Your task to perform on an android device: Open Chrome and go to settings Image 0: 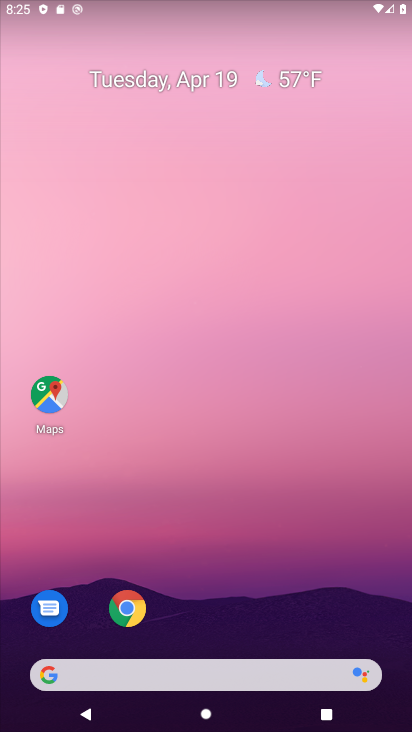
Step 0: click (128, 607)
Your task to perform on an android device: Open Chrome and go to settings Image 1: 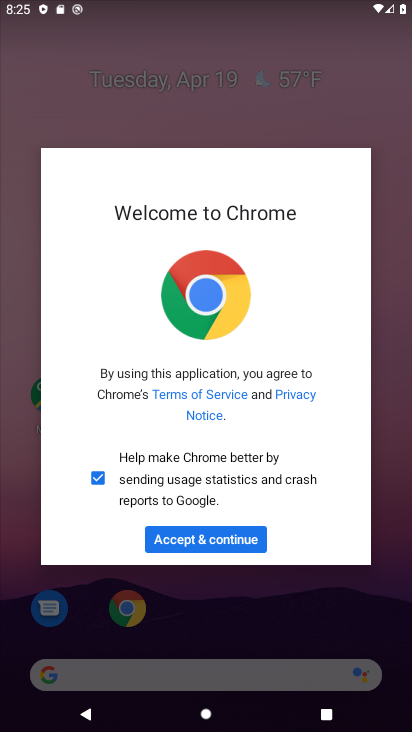
Step 1: click (188, 540)
Your task to perform on an android device: Open Chrome and go to settings Image 2: 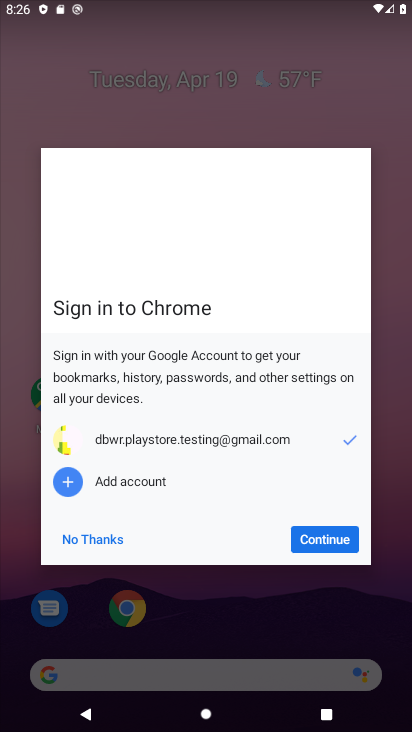
Step 2: click (311, 542)
Your task to perform on an android device: Open Chrome and go to settings Image 3: 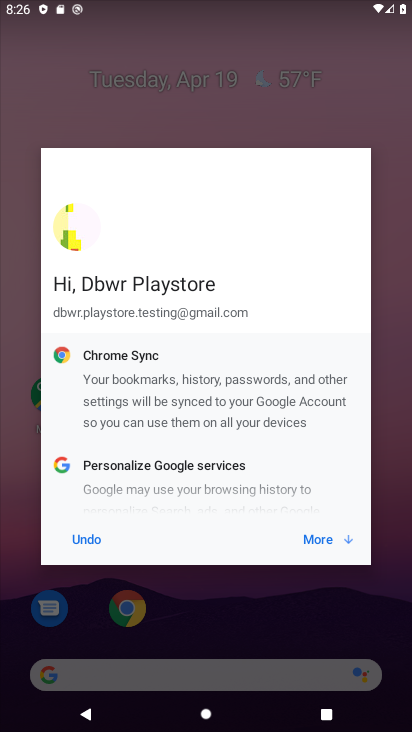
Step 3: click (312, 542)
Your task to perform on an android device: Open Chrome and go to settings Image 4: 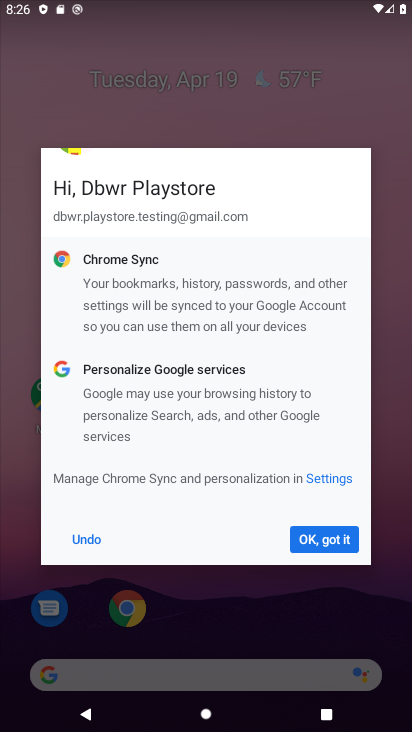
Step 4: click (312, 542)
Your task to perform on an android device: Open Chrome and go to settings Image 5: 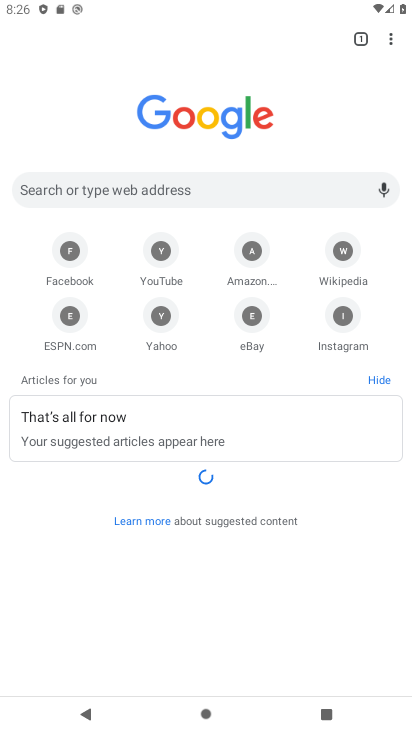
Step 5: click (388, 41)
Your task to perform on an android device: Open Chrome and go to settings Image 6: 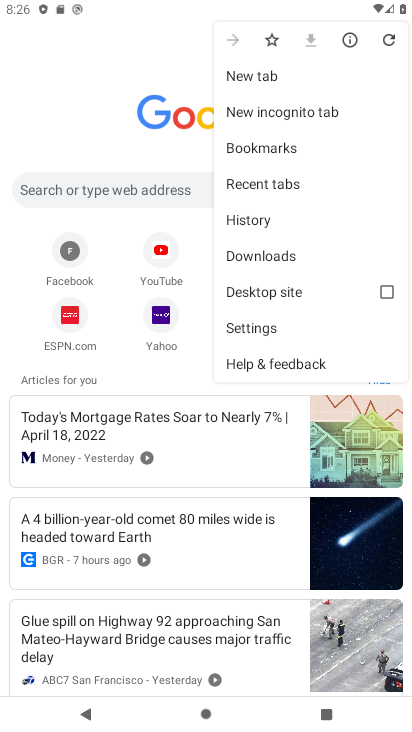
Step 6: click (253, 324)
Your task to perform on an android device: Open Chrome and go to settings Image 7: 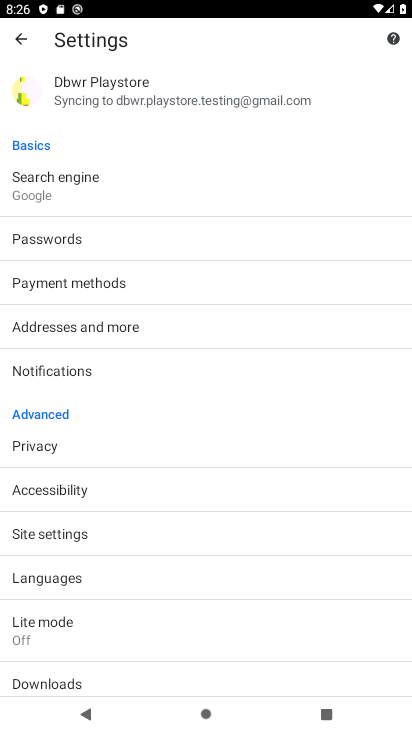
Step 7: task complete